Your task to perform on an android device: change notification settings in the gmail app Image 0: 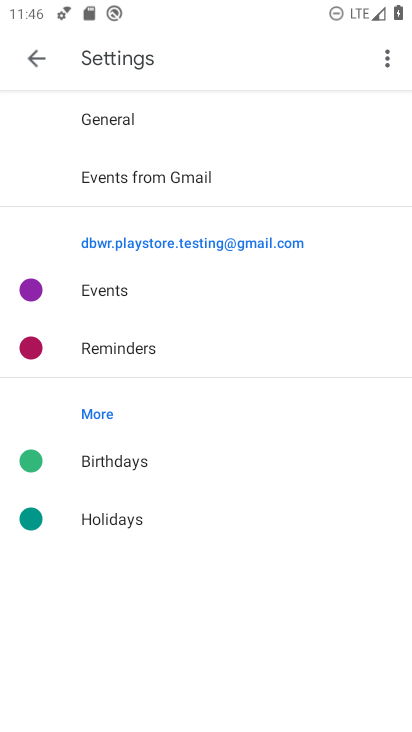
Step 0: press home button
Your task to perform on an android device: change notification settings in the gmail app Image 1: 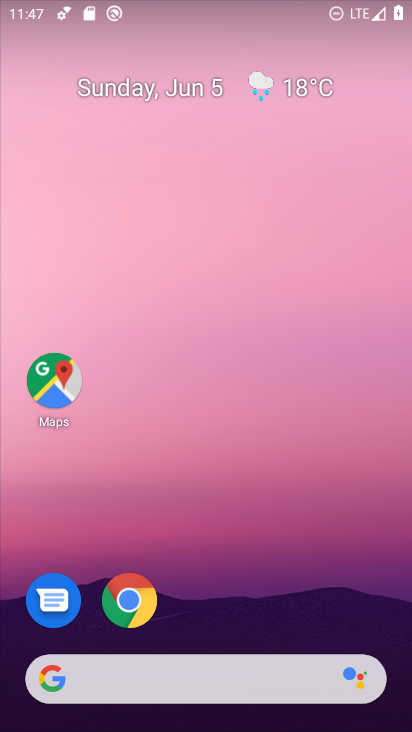
Step 1: click (232, 599)
Your task to perform on an android device: change notification settings in the gmail app Image 2: 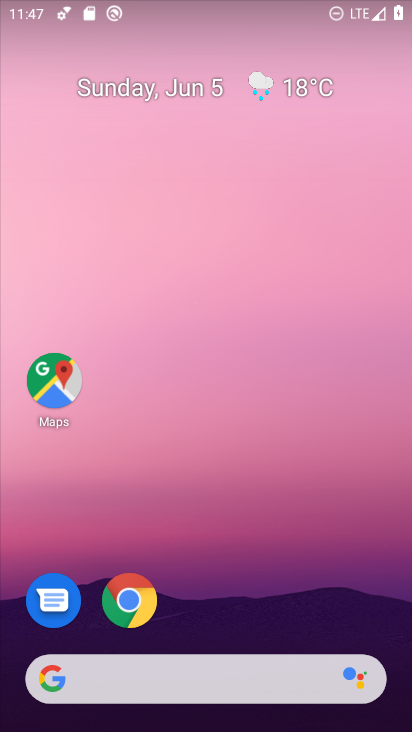
Step 2: drag from (235, 597) to (248, 215)
Your task to perform on an android device: change notification settings in the gmail app Image 3: 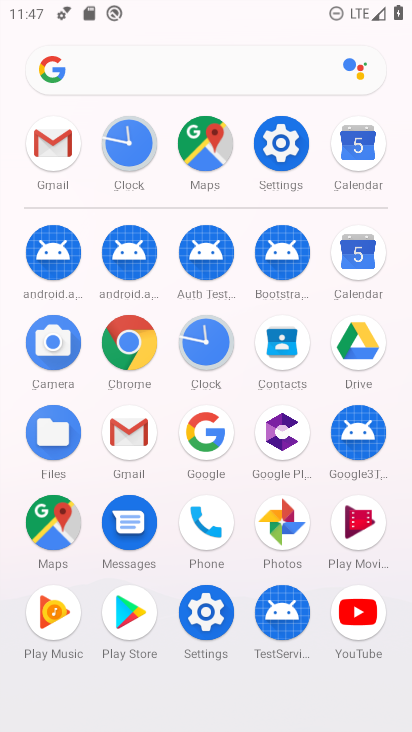
Step 3: click (50, 172)
Your task to perform on an android device: change notification settings in the gmail app Image 4: 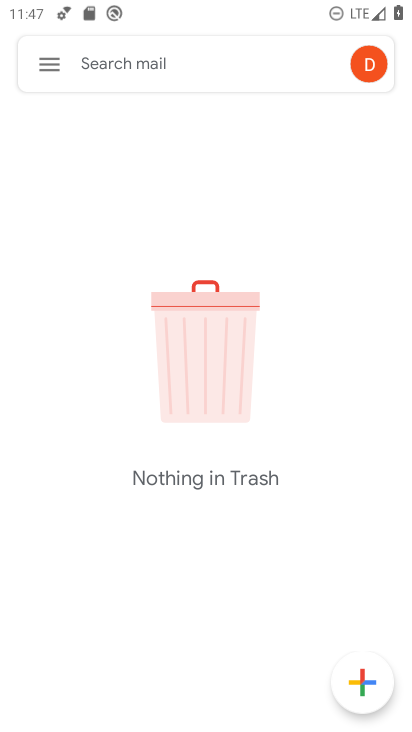
Step 4: click (37, 68)
Your task to perform on an android device: change notification settings in the gmail app Image 5: 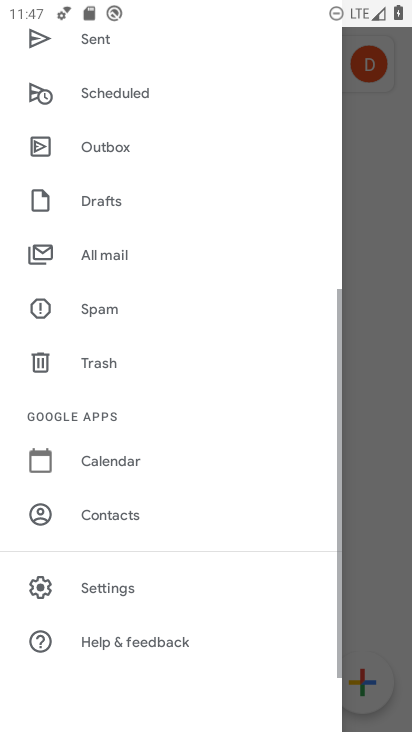
Step 5: click (135, 586)
Your task to perform on an android device: change notification settings in the gmail app Image 6: 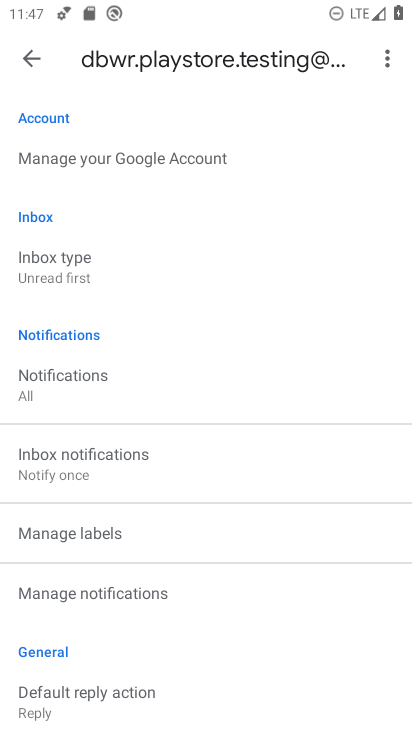
Step 6: click (109, 582)
Your task to perform on an android device: change notification settings in the gmail app Image 7: 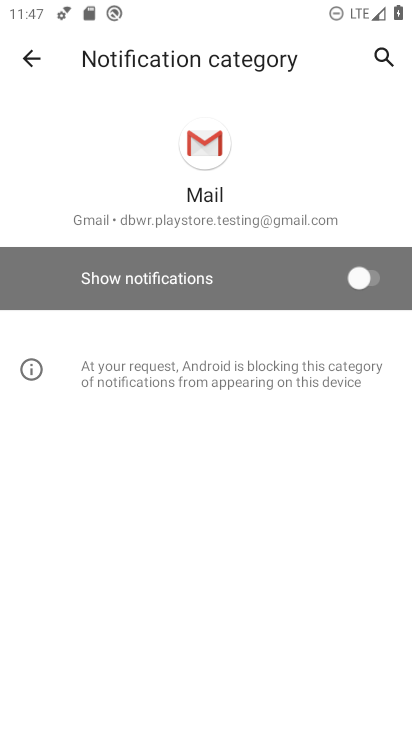
Step 7: click (373, 274)
Your task to perform on an android device: change notification settings in the gmail app Image 8: 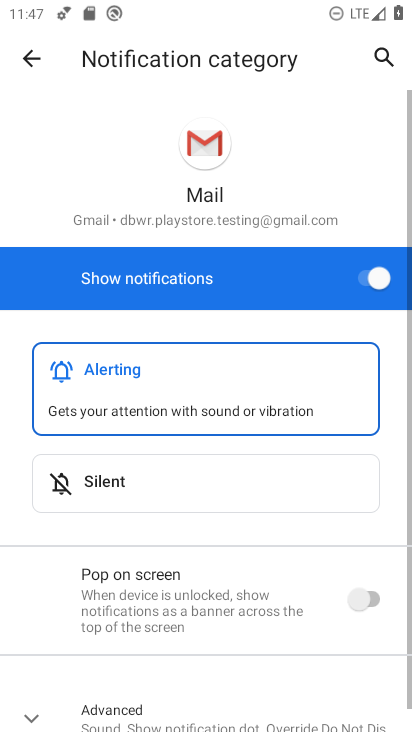
Step 8: task complete